Your task to perform on an android device: change your default location settings in chrome Image 0: 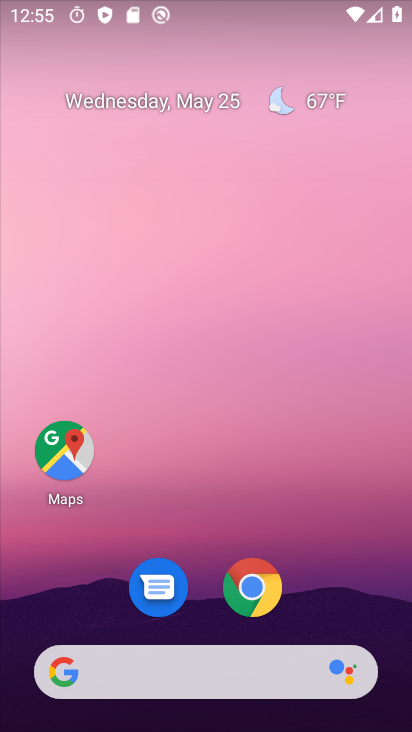
Step 0: click (258, 588)
Your task to perform on an android device: change your default location settings in chrome Image 1: 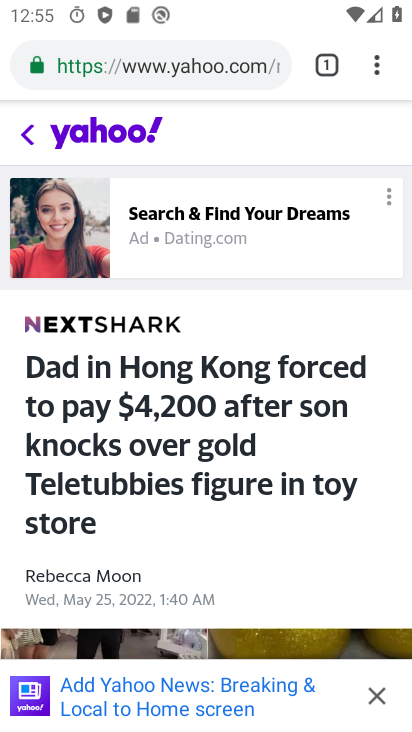
Step 1: click (377, 71)
Your task to perform on an android device: change your default location settings in chrome Image 2: 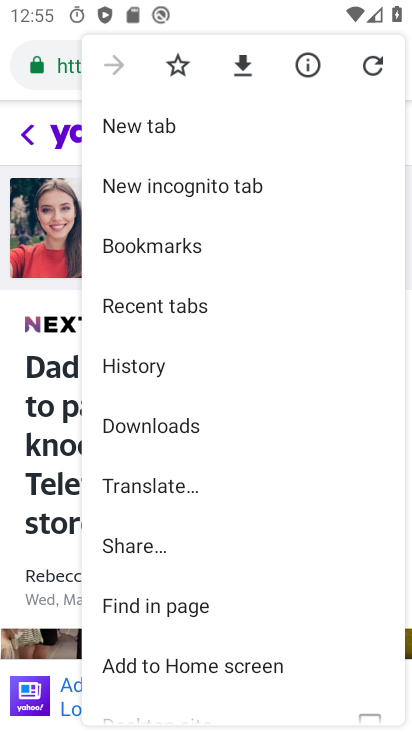
Step 2: drag from (201, 639) to (204, 285)
Your task to perform on an android device: change your default location settings in chrome Image 3: 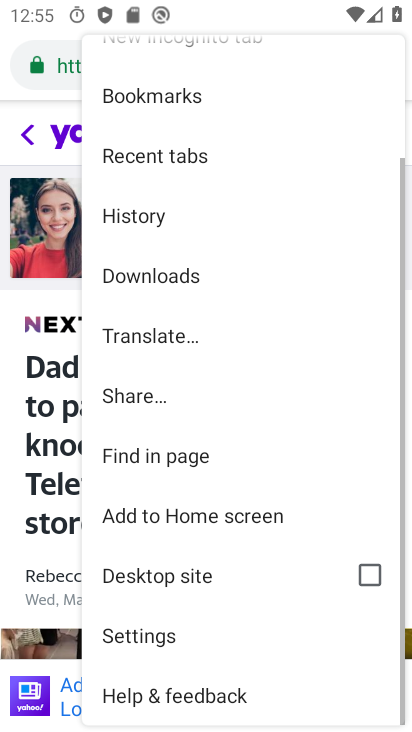
Step 3: click (151, 631)
Your task to perform on an android device: change your default location settings in chrome Image 4: 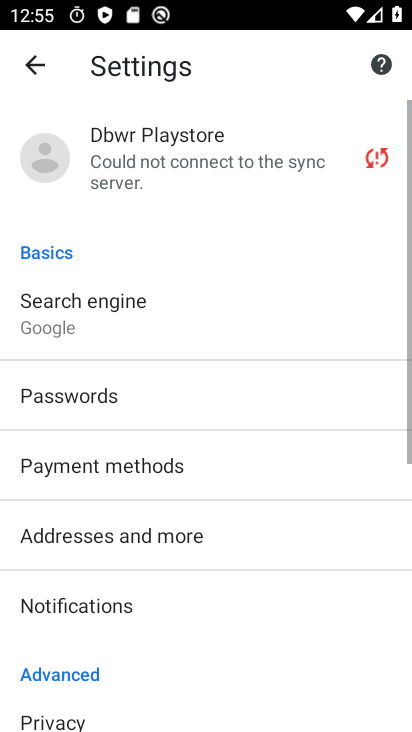
Step 4: drag from (147, 637) to (161, 283)
Your task to perform on an android device: change your default location settings in chrome Image 5: 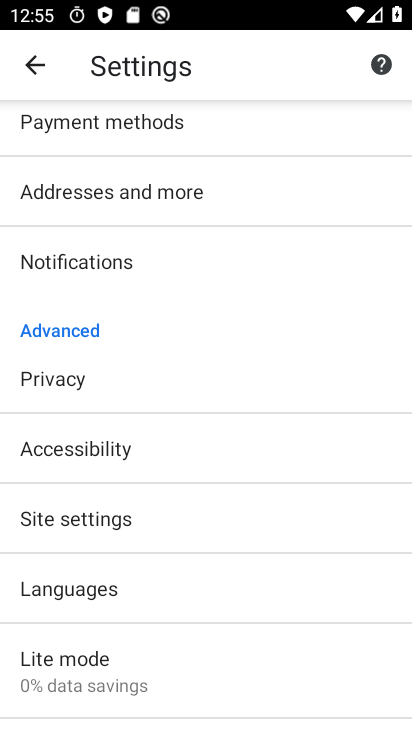
Step 5: click (104, 519)
Your task to perform on an android device: change your default location settings in chrome Image 6: 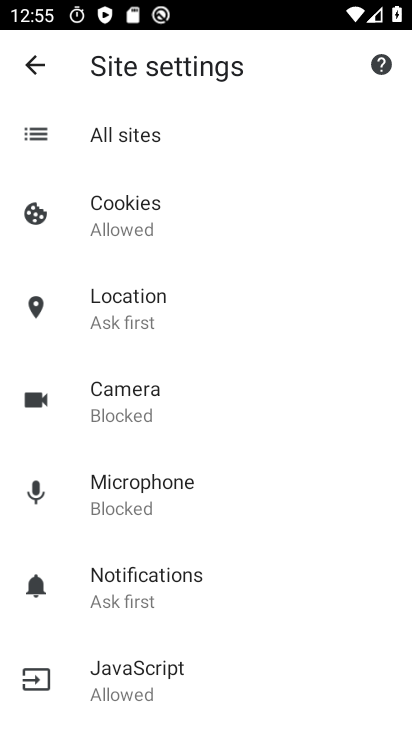
Step 6: click (125, 308)
Your task to perform on an android device: change your default location settings in chrome Image 7: 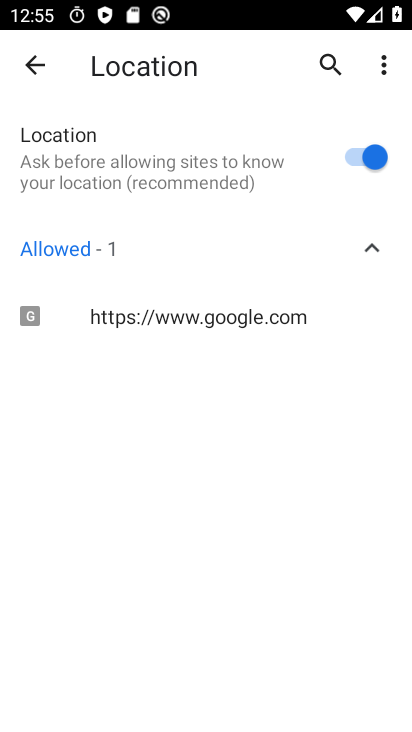
Step 7: click (352, 154)
Your task to perform on an android device: change your default location settings in chrome Image 8: 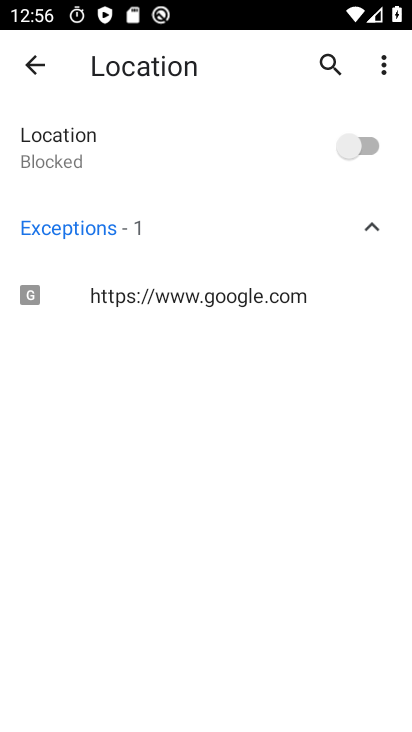
Step 8: task complete